Your task to perform on an android device: What's on my calendar tomorrow? Image 0: 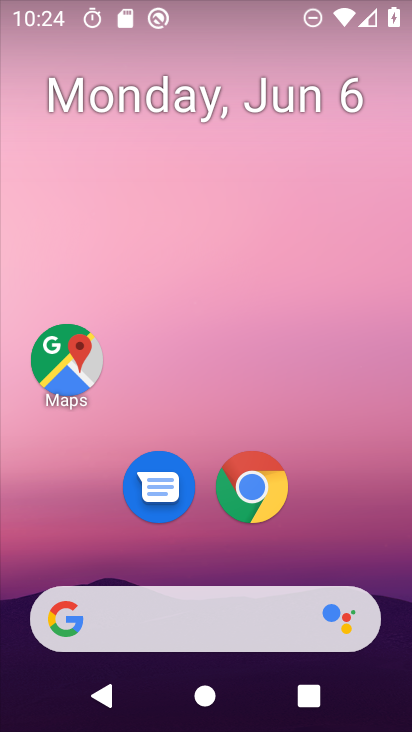
Step 0: drag from (394, 522) to (257, 0)
Your task to perform on an android device: What's on my calendar tomorrow? Image 1: 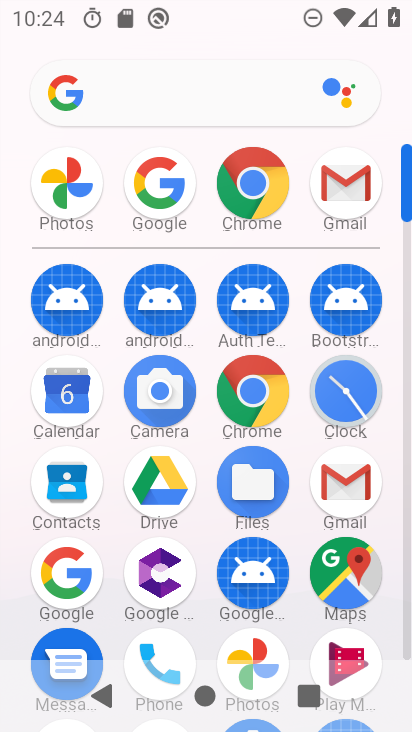
Step 1: click (89, 460)
Your task to perform on an android device: What's on my calendar tomorrow? Image 2: 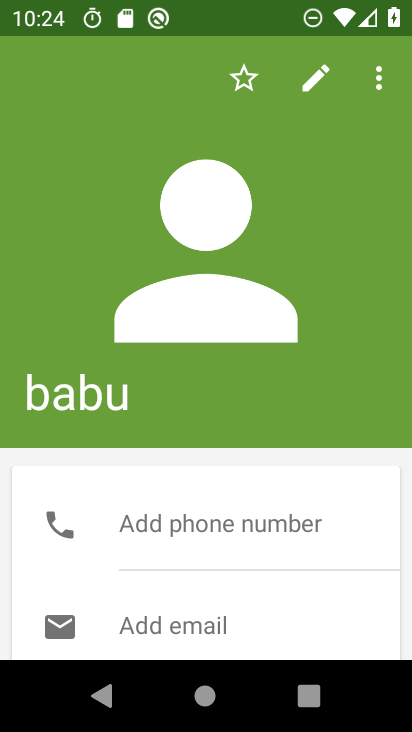
Step 2: press home button
Your task to perform on an android device: What's on my calendar tomorrow? Image 3: 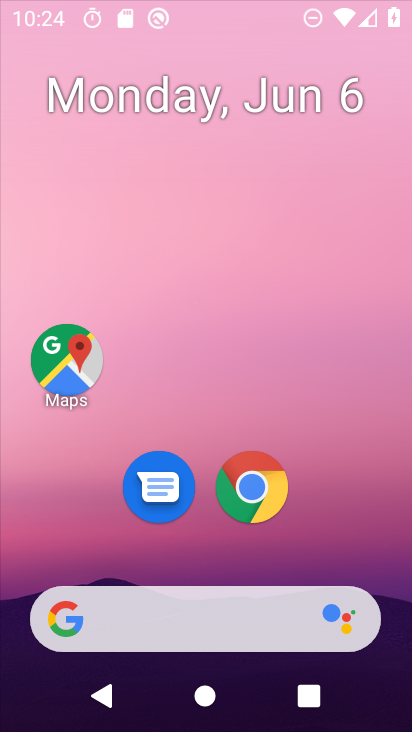
Step 3: drag from (396, 670) to (311, 91)
Your task to perform on an android device: What's on my calendar tomorrow? Image 4: 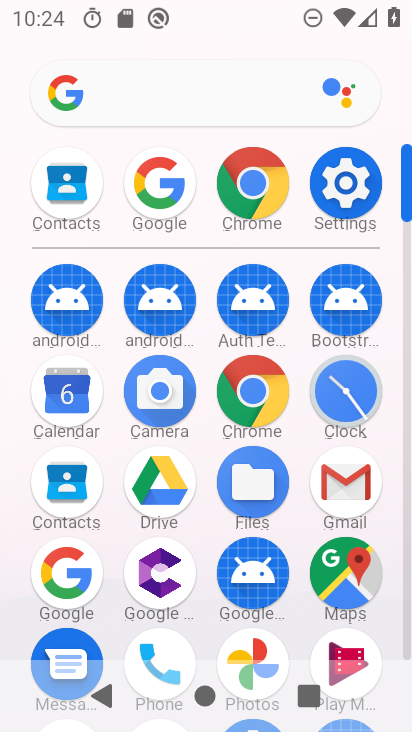
Step 4: click (92, 392)
Your task to perform on an android device: What's on my calendar tomorrow? Image 5: 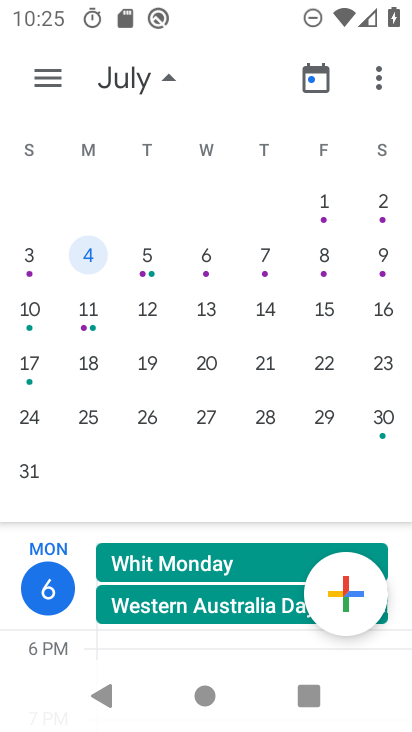
Step 5: task complete